Your task to perform on an android device: Open Youtube and go to the subscriptions tab Image 0: 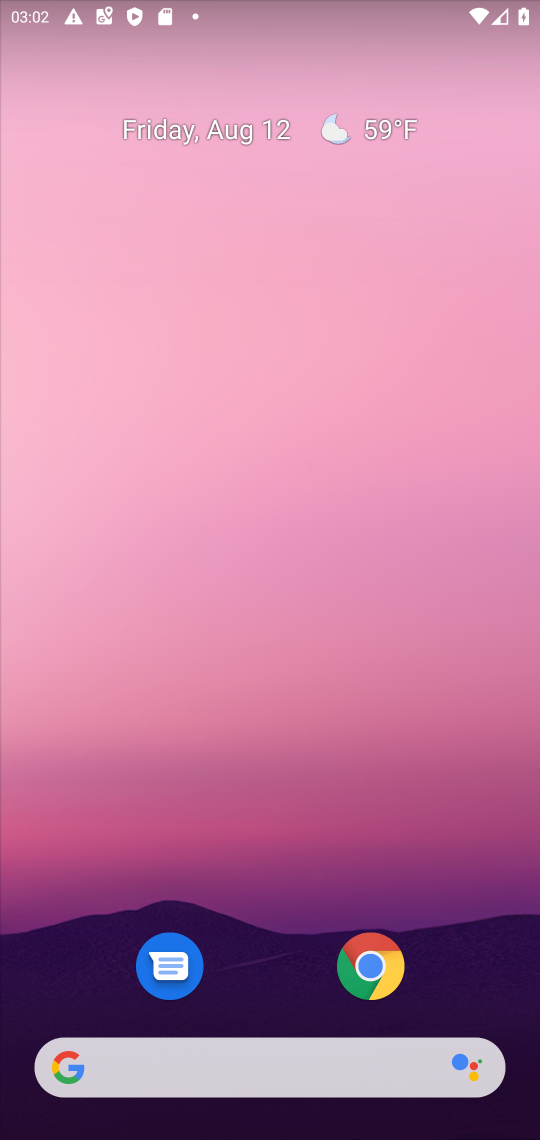
Step 0: drag from (248, 656) to (314, 195)
Your task to perform on an android device: Open Youtube and go to the subscriptions tab Image 1: 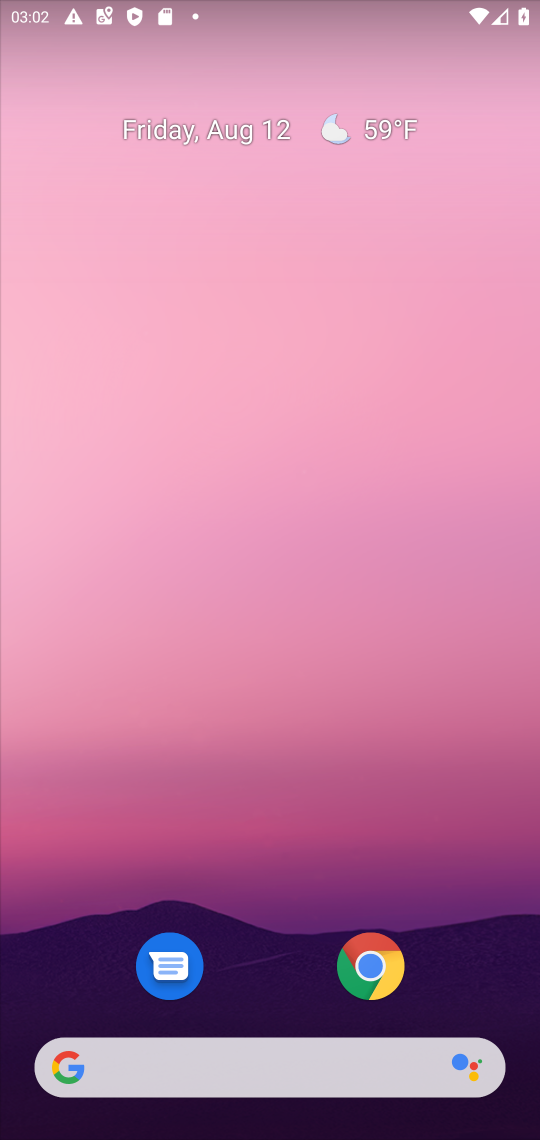
Step 1: drag from (300, 874) to (380, 148)
Your task to perform on an android device: Open Youtube and go to the subscriptions tab Image 2: 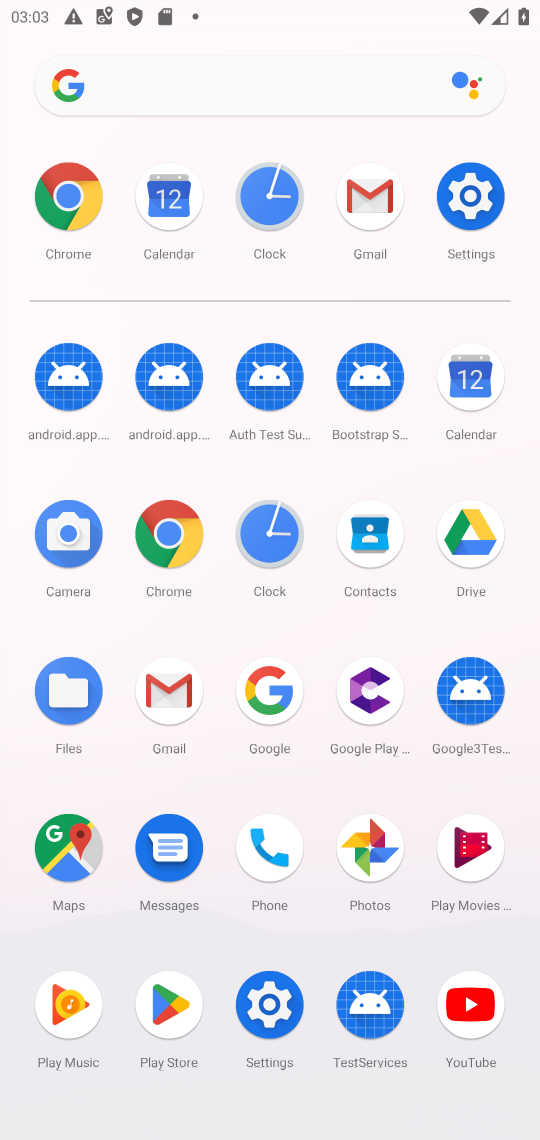
Step 2: click (467, 1003)
Your task to perform on an android device: Open Youtube and go to the subscriptions tab Image 3: 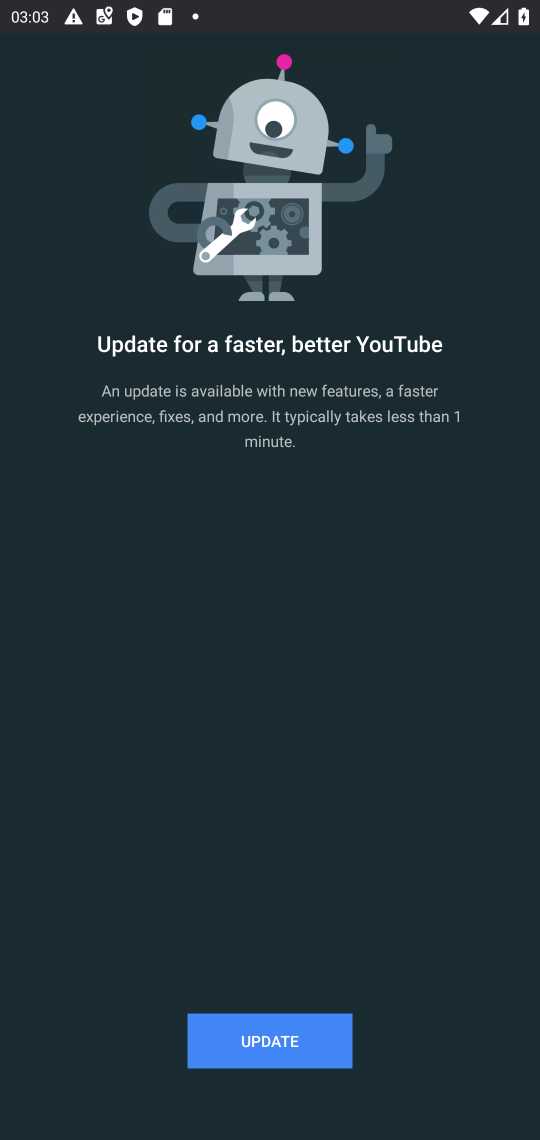
Step 3: click (288, 1052)
Your task to perform on an android device: Open Youtube and go to the subscriptions tab Image 4: 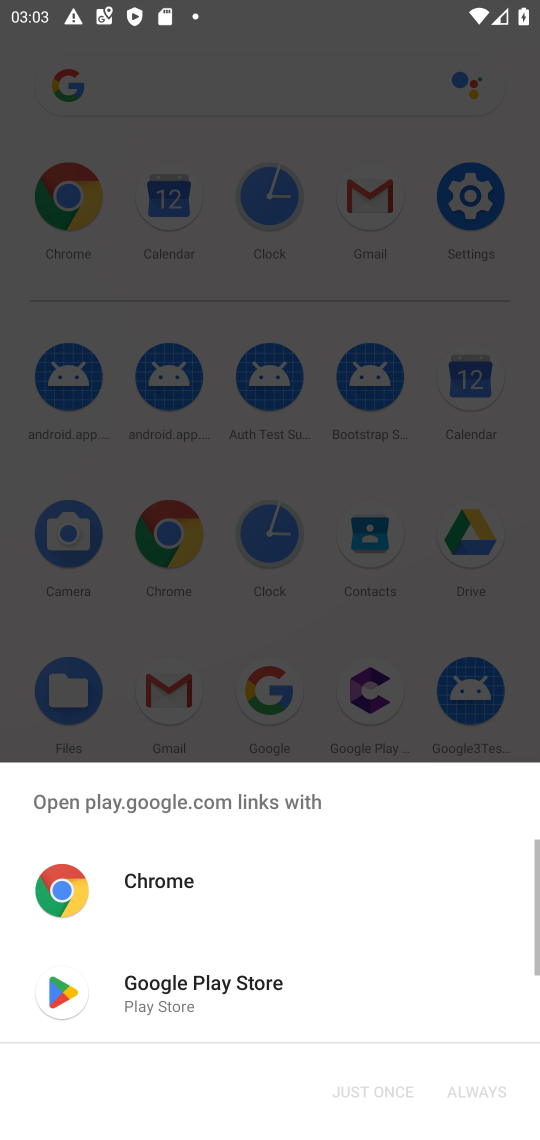
Step 4: click (232, 985)
Your task to perform on an android device: Open Youtube and go to the subscriptions tab Image 5: 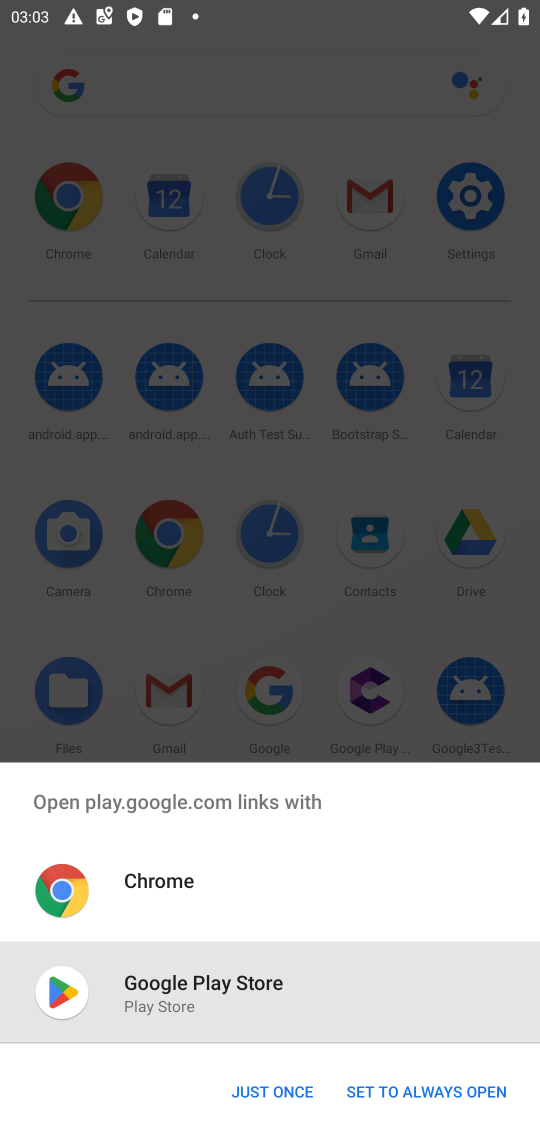
Step 5: click (286, 1094)
Your task to perform on an android device: Open Youtube and go to the subscriptions tab Image 6: 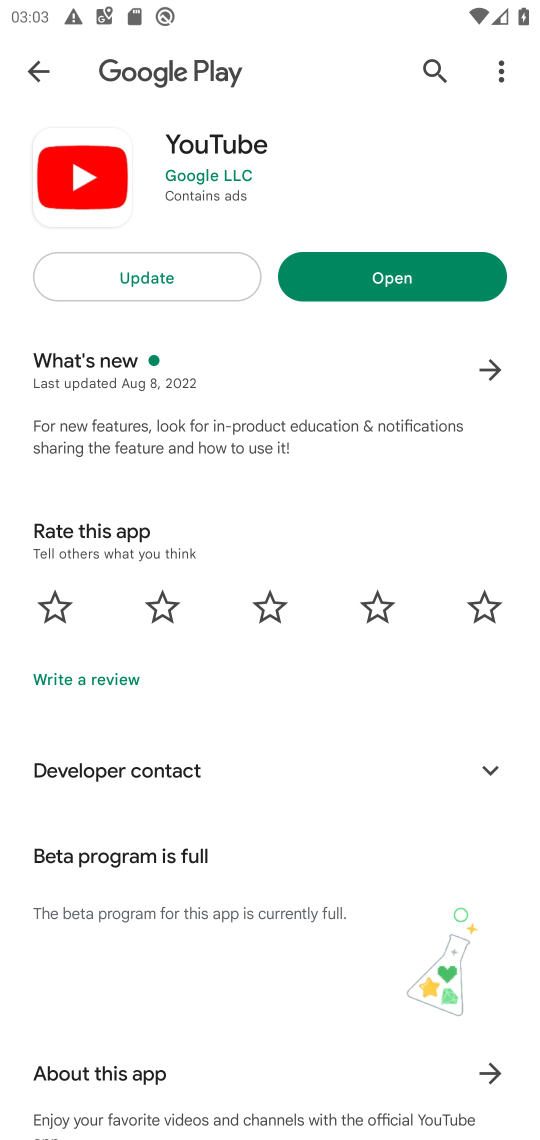
Step 6: click (163, 272)
Your task to perform on an android device: Open Youtube and go to the subscriptions tab Image 7: 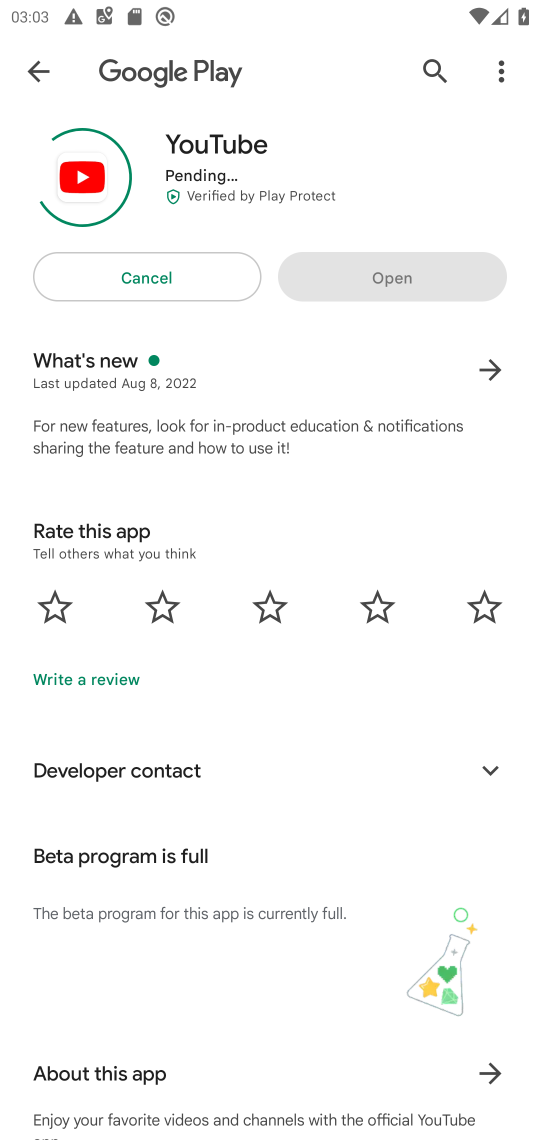
Step 7: task complete